Your task to perform on an android device: turn on javascript in the chrome app Image 0: 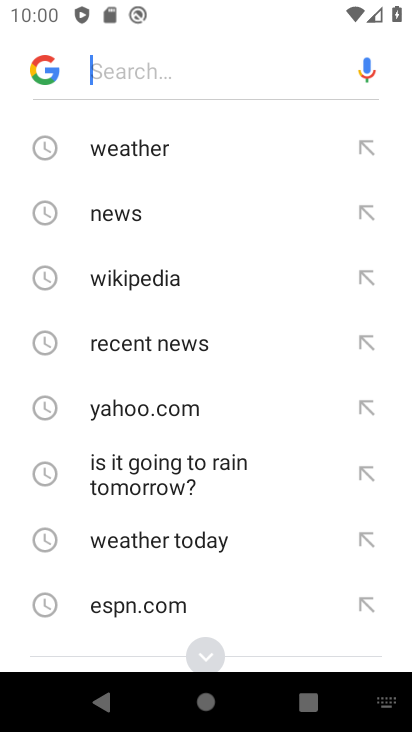
Step 0: press home button
Your task to perform on an android device: turn on javascript in the chrome app Image 1: 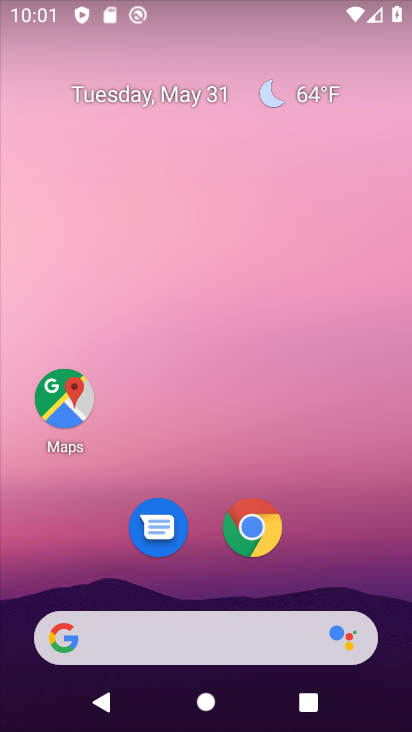
Step 1: click (244, 540)
Your task to perform on an android device: turn on javascript in the chrome app Image 2: 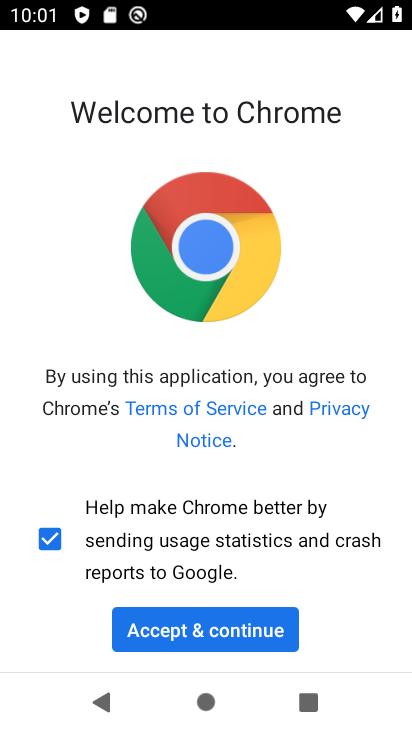
Step 2: click (234, 633)
Your task to perform on an android device: turn on javascript in the chrome app Image 3: 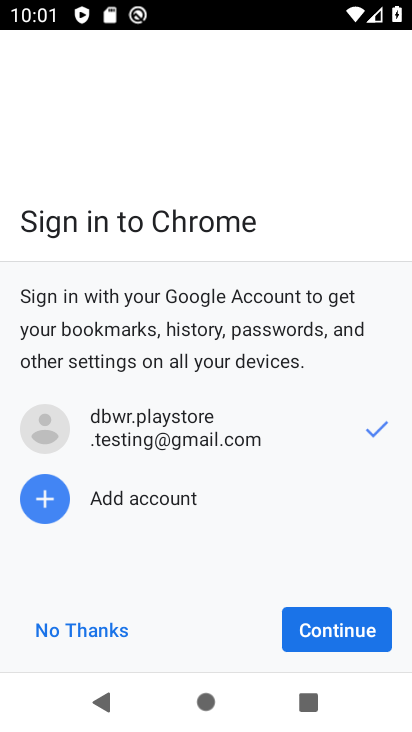
Step 3: click (234, 633)
Your task to perform on an android device: turn on javascript in the chrome app Image 4: 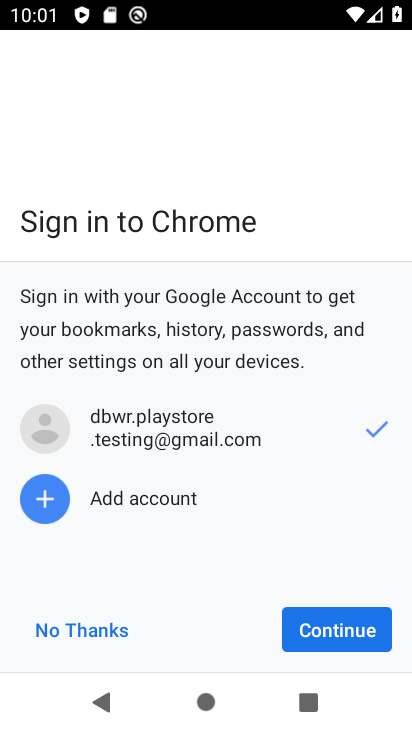
Step 4: click (325, 626)
Your task to perform on an android device: turn on javascript in the chrome app Image 5: 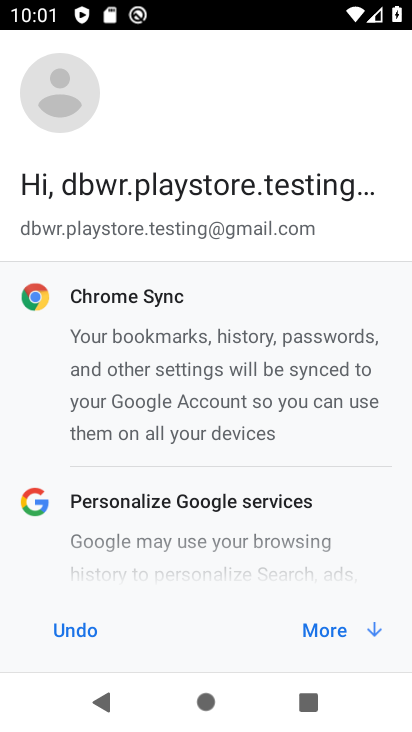
Step 5: click (332, 618)
Your task to perform on an android device: turn on javascript in the chrome app Image 6: 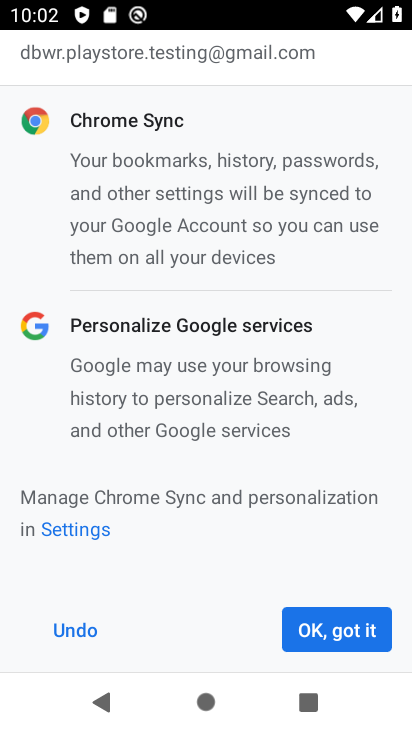
Step 6: click (332, 618)
Your task to perform on an android device: turn on javascript in the chrome app Image 7: 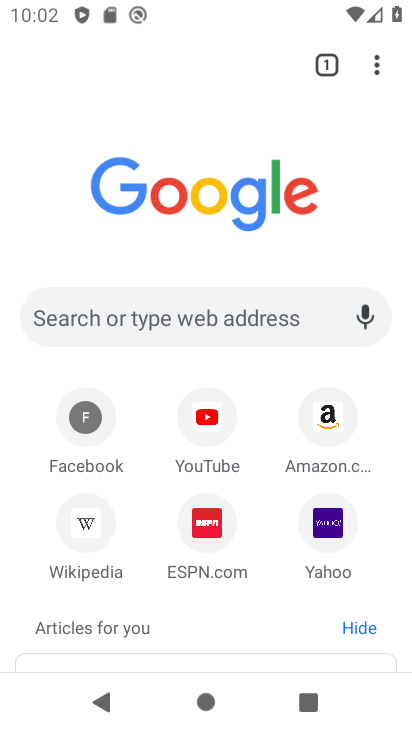
Step 7: click (378, 61)
Your task to perform on an android device: turn on javascript in the chrome app Image 8: 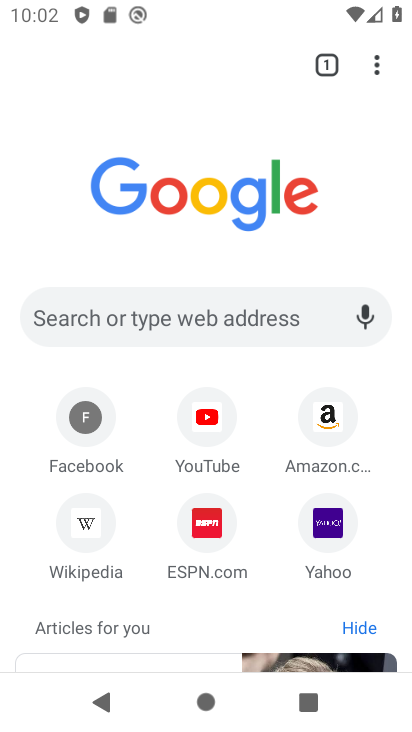
Step 8: click (371, 66)
Your task to perform on an android device: turn on javascript in the chrome app Image 9: 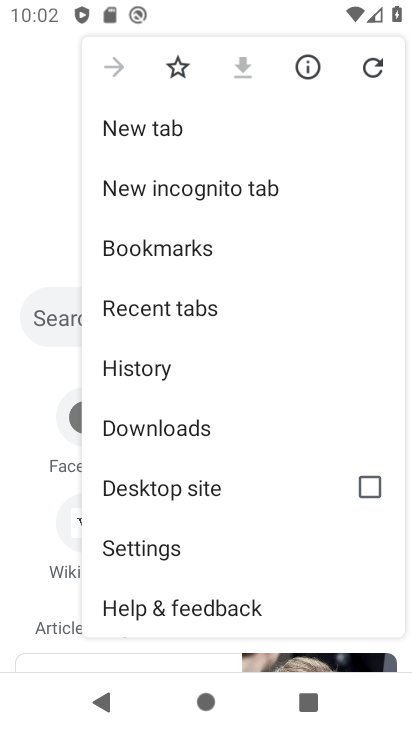
Step 9: click (145, 567)
Your task to perform on an android device: turn on javascript in the chrome app Image 10: 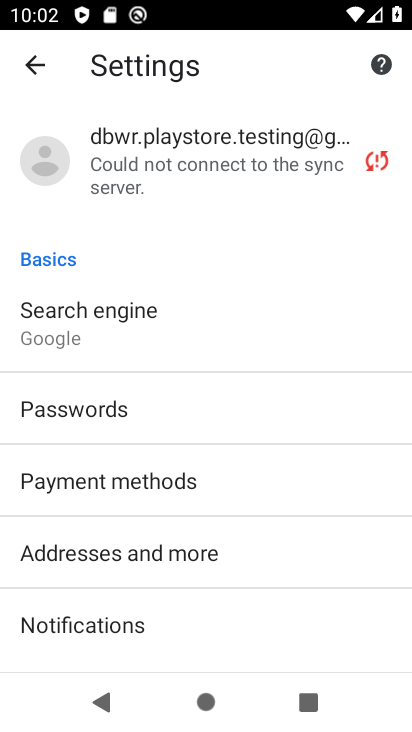
Step 10: drag from (204, 646) to (357, 33)
Your task to perform on an android device: turn on javascript in the chrome app Image 11: 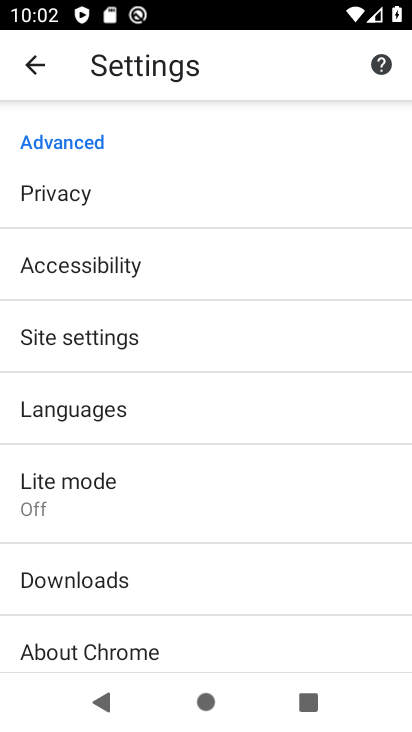
Step 11: click (126, 328)
Your task to perform on an android device: turn on javascript in the chrome app Image 12: 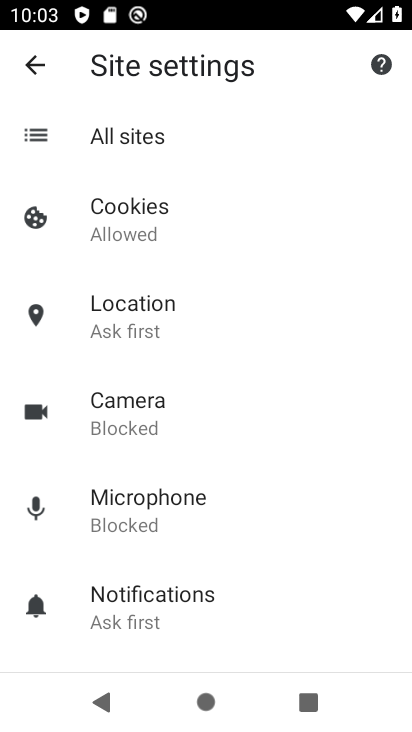
Step 12: drag from (197, 533) to (243, 35)
Your task to perform on an android device: turn on javascript in the chrome app Image 13: 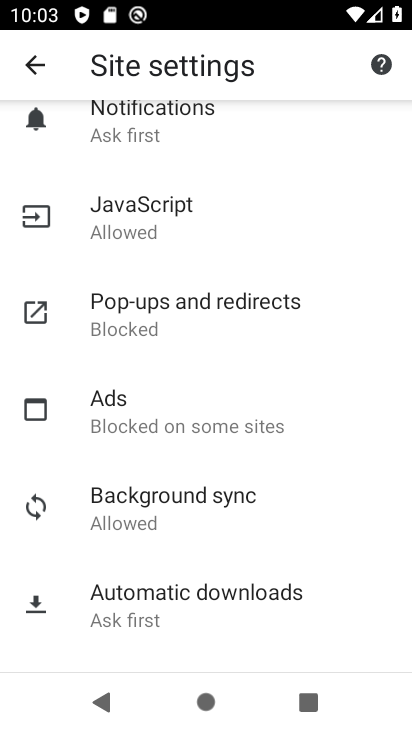
Step 13: click (212, 223)
Your task to perform on an android device: turn on javascript in the chrome app Image 14: 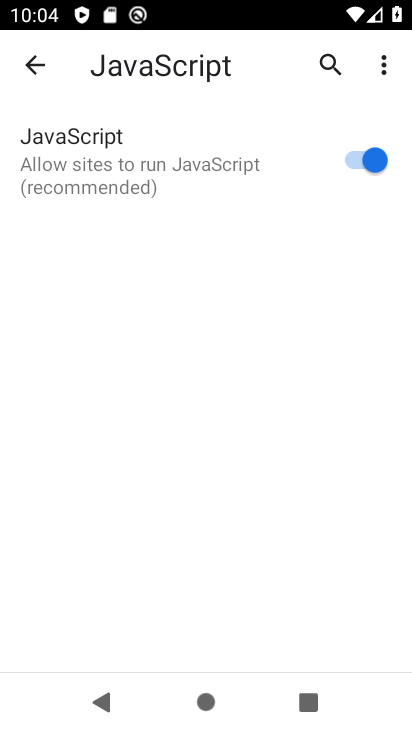
Step 14: task complete